Your task to perform on an android device: turn off translation in the chrome app Image 0: 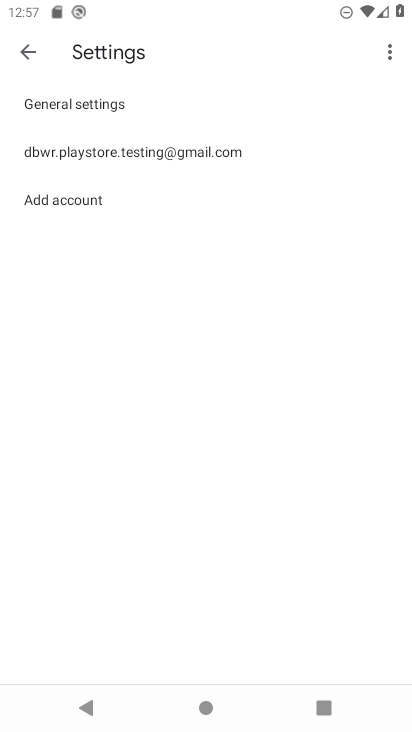
Step 0: press home button
Your task to perform on an android device: turn off translation in the chrome app Image 1: 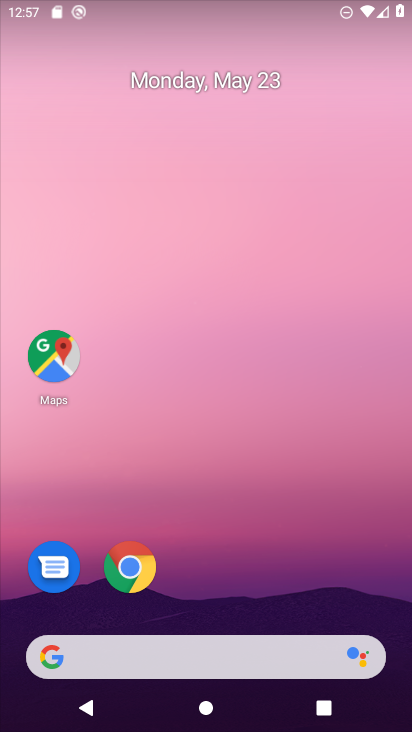
Step 1: click (114, 565)
Your task to perform on an android device: turn off translation in the chrome app Image 2: 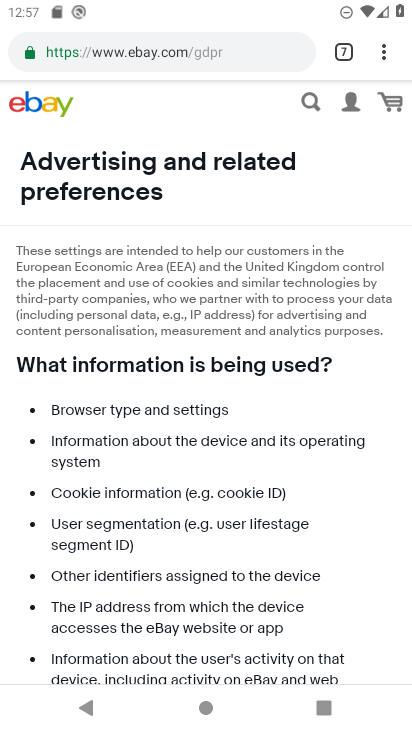
Step 2: click (385, 53)
Your task to perform on an android device: turn off translation in the chrome app Image 3: 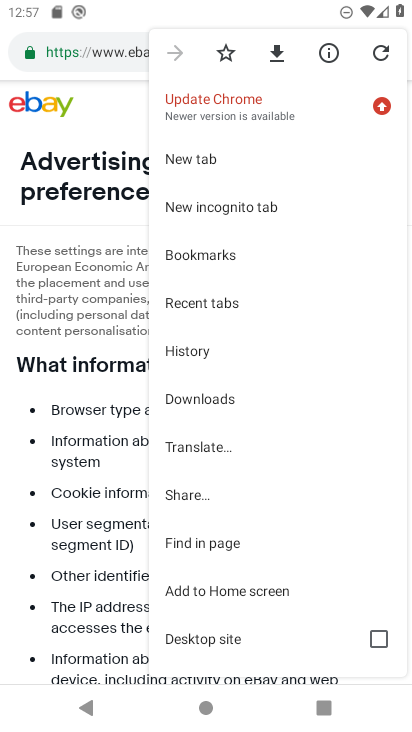
Step 3: drag from (201, 632) to (263, 96)
Your task to perform on an android device: turn off translation in the chrome app Image 4: 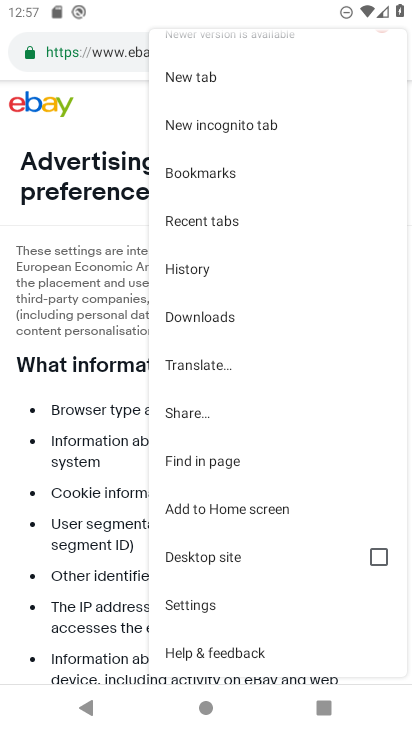
Step 4: click (178, 611)
Your task to perform on an android device: turn off translation in the chrome app Image 5: 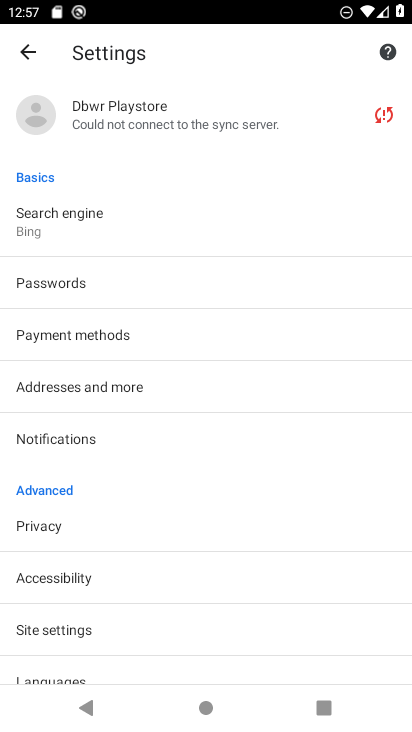
Step 5: drag from (74, 673) to (157, 210)
Your task to perform on an android device: turn off translation in the chrome app Image 6: 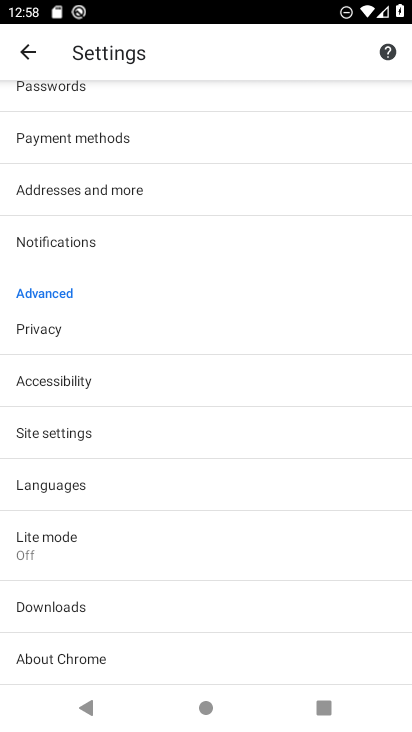
Step 6: click (72, 471)
Your task to perform on an android device: turn off translation in the chrome app Image 7: 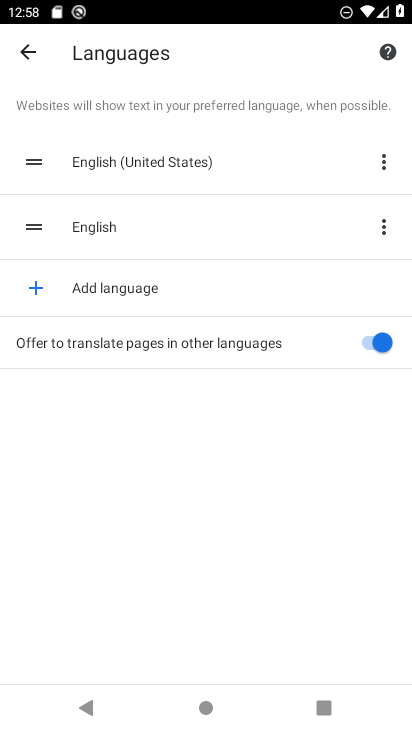
Step 7: click (379, 349)
Your task to perform on an android device: turn off translation in the chrome app Image 8: 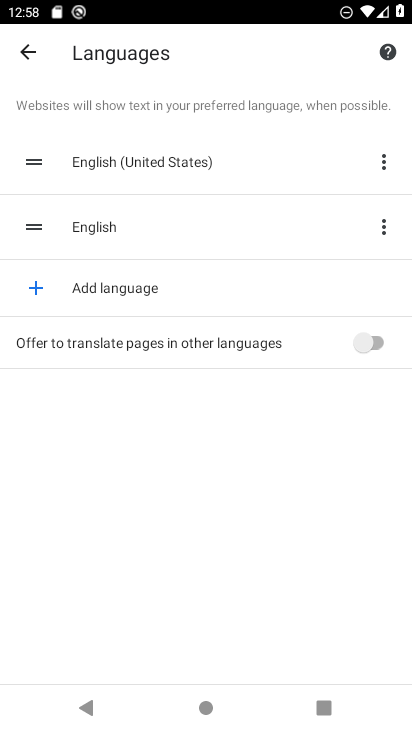
Step 8: task complete